Your task to perform on an android device: Open accessibility settings Image 0: 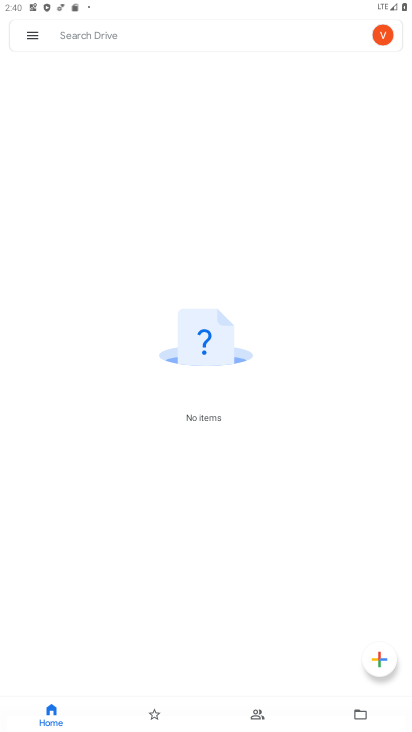
Step 0: press home button
Your task to perform on an android device: Open accessibility settings Image 1: 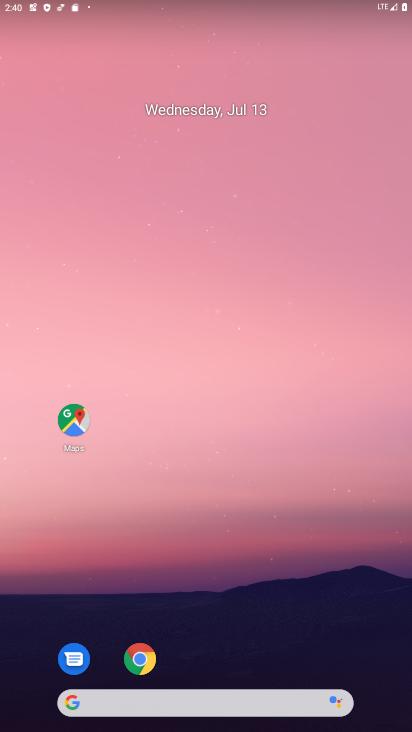
Step 1: drag from (380, 658) to (324, 118)
Your task to perform on an android device: Open accessibility settings Image 2: 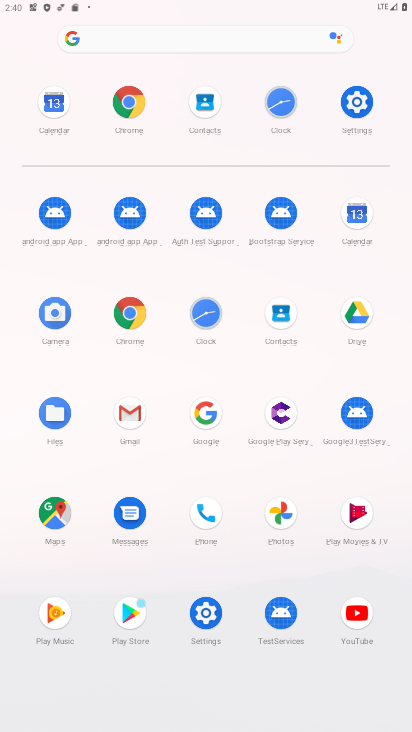
Step 2: click (207, 617)
Your task to perform on an android device: Open accessibility settings Image 3: 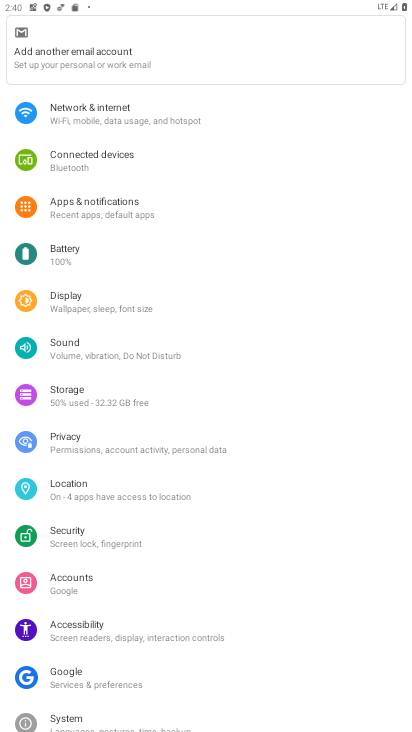
Step 3: click (71, 630)
Your task to perform on an android device: Open accessibility settings Image 4: 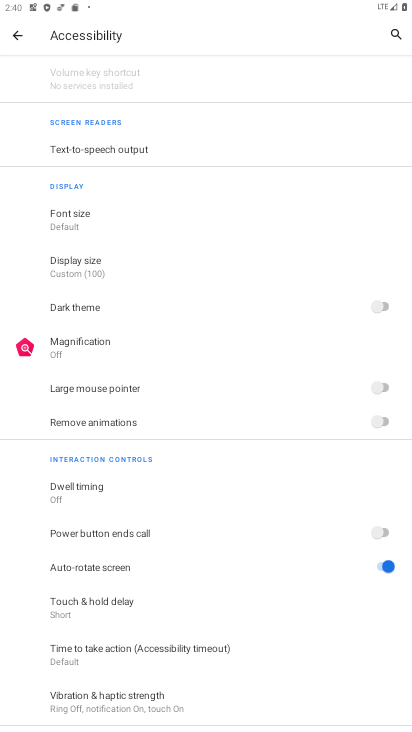
Step 4: task complete